Your task to perform on an android device: open app "Pinterest" Image 0: 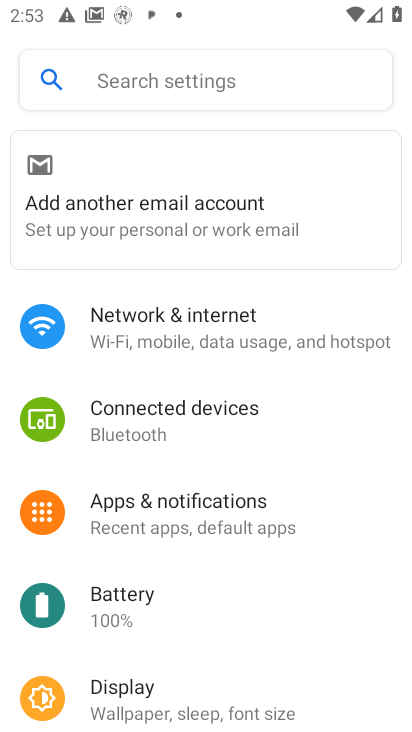
Step 0: press home button
Your task to perform on an android device: open app "Pinterest" Image 1: 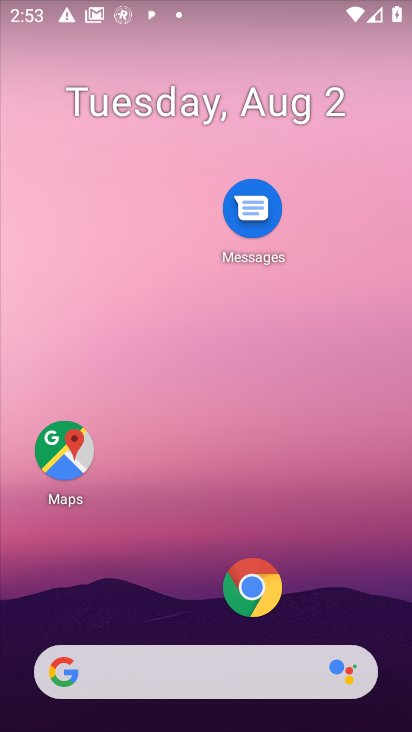
Step 1: drag from (122, 589) to (143, 217)
Your task to perform on an android device: open app "Pinterest" Image 2: 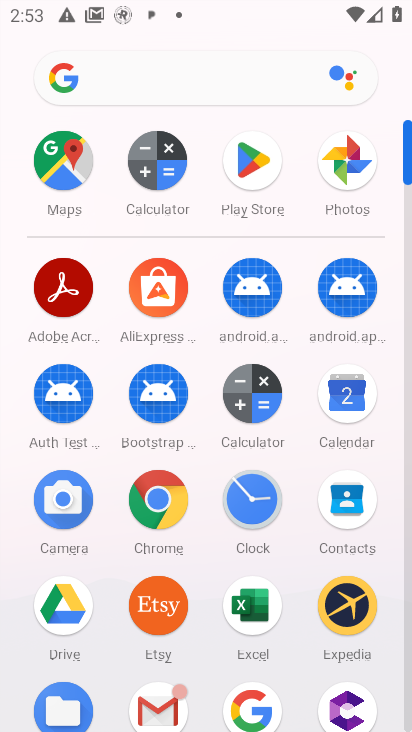
Step 2: click (242, 169)
Your task to perform on an android device: open app "Pinterest" Image 3: 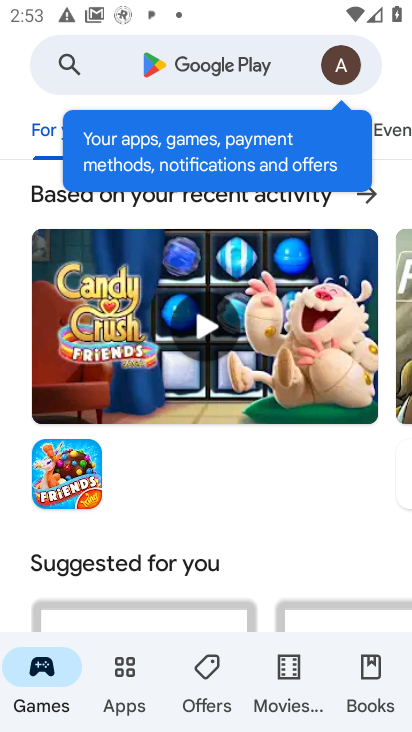
Step 3: click (253, 73)
Your task to perform on an android device: open app "Pinterest" Image 4: 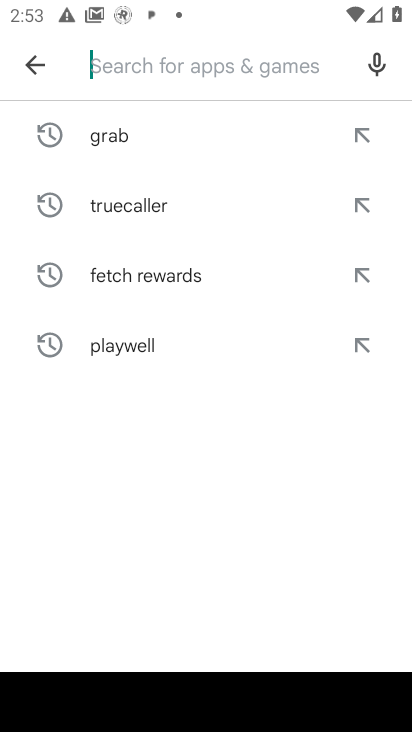
Step 4: type "Pinterest"
Your task to perform on an android device: open app "Pinterest" Image 5: 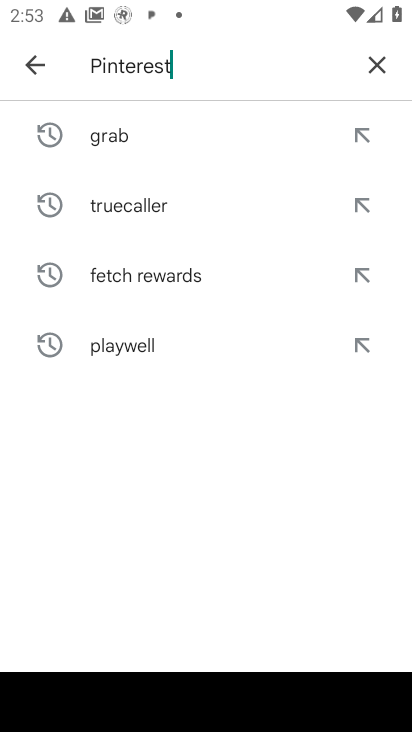
Step 5: type ""
Your task to perform on an android device: open app "Pinterest" Image 6: 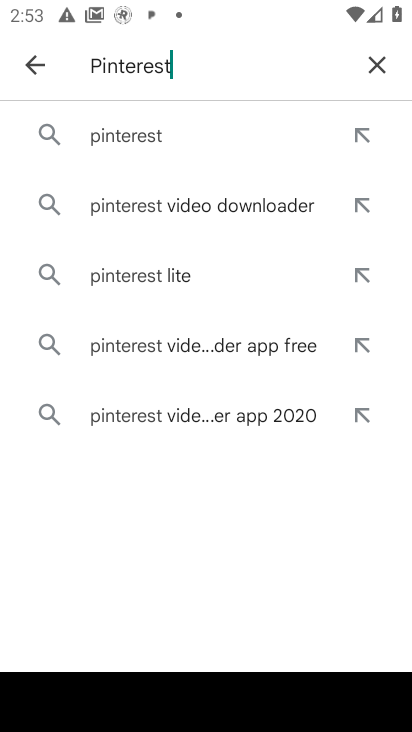
Step 6: click (169, 136)
Your task to perform on an android device: open app "Pinterest" Image 7: 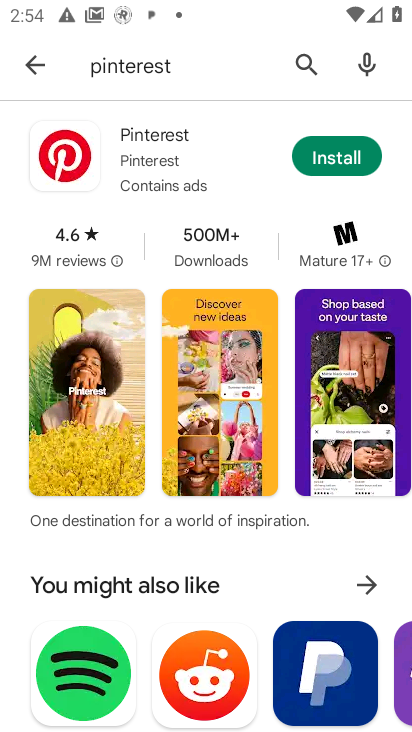
Step 7: task complete